Your task to perform on an android device: Open calendar and show me the third week of next month Image 0: 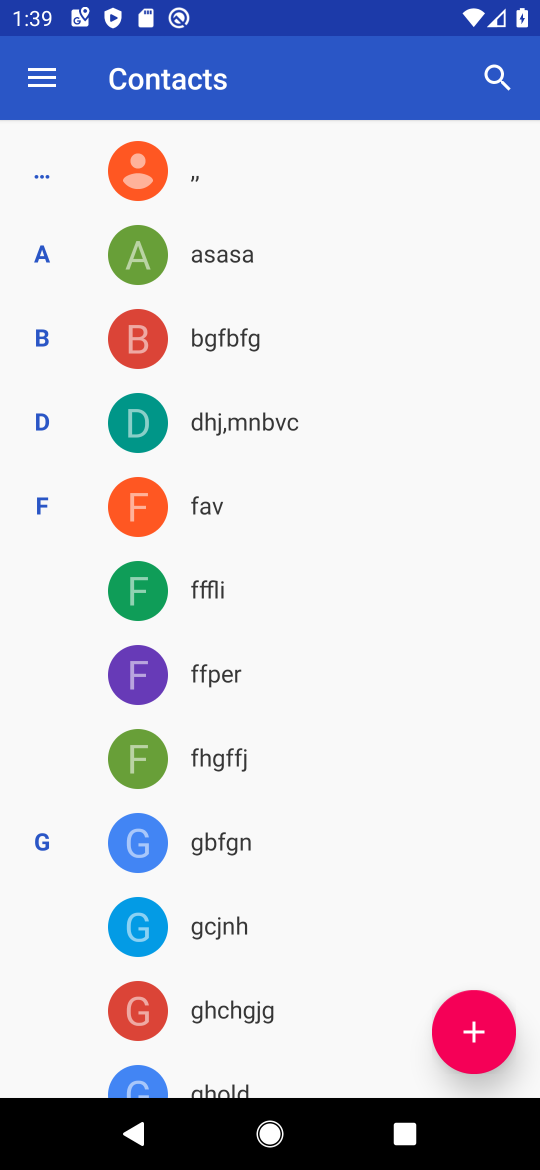
Step 0: press home button
Your task to perform on an android device: Open calendar and show me the third week of next month Image 1: 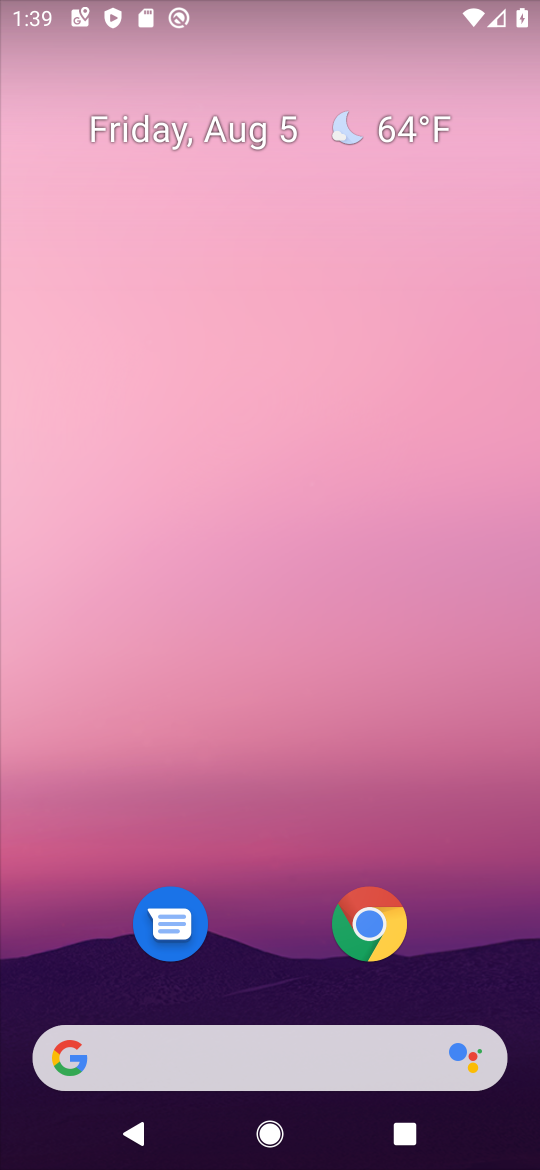
Step 1: drag from (257, 1067) to (366, 48)
Your task to perform on an android device: Open calendar and show me the third week of next month Image 2: 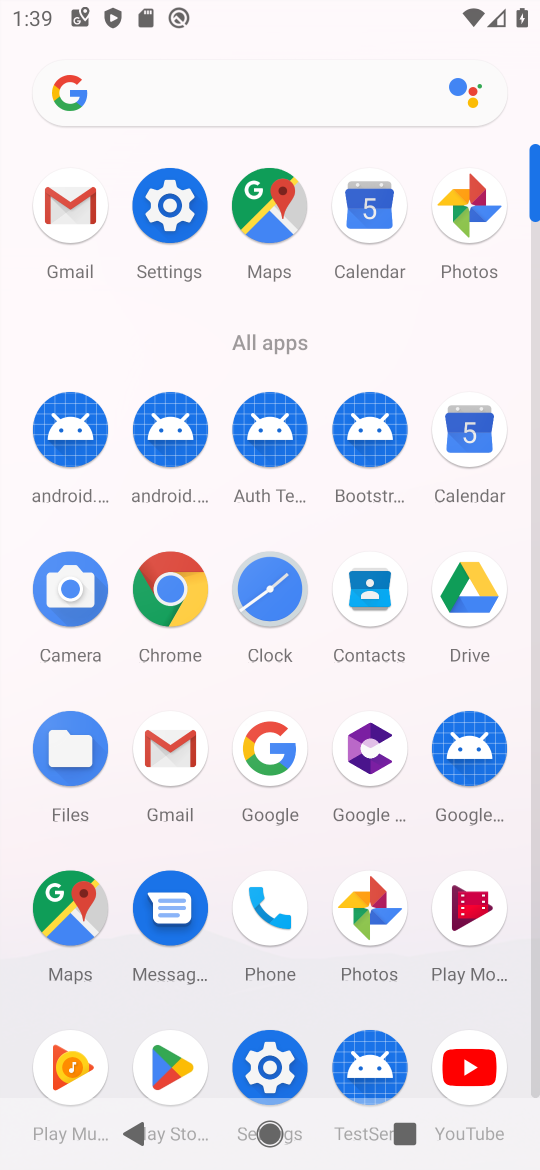
Step 2: click (467, 433)
Your task to perform on an android device: Open calendar and show me the third week of next month Image 3: 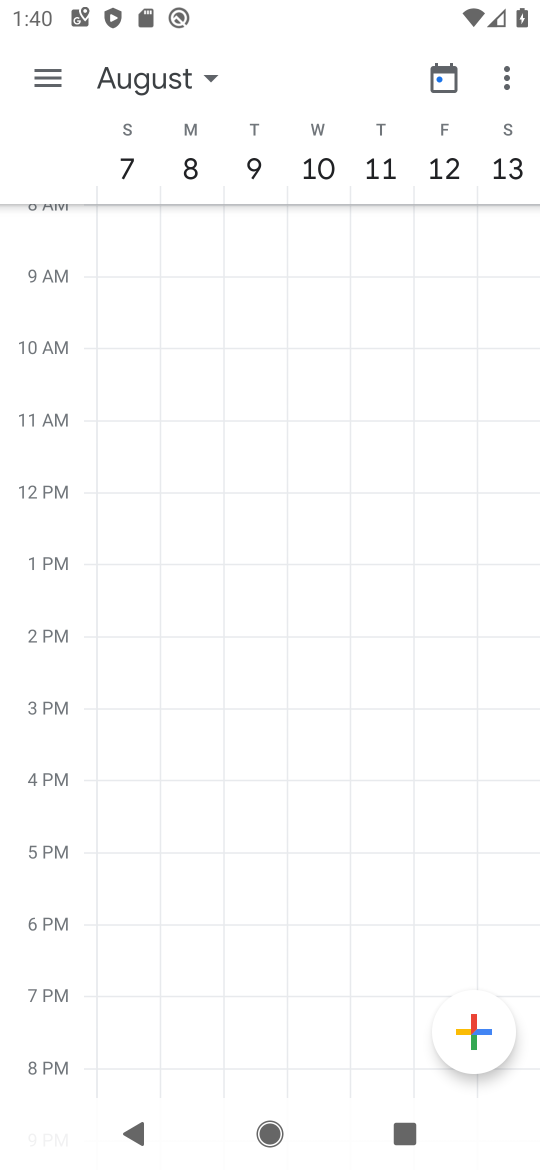
Step 3: click (444, 76)
Your task to perform on an android device: Open calendar and show me the third week of next month Image 4: 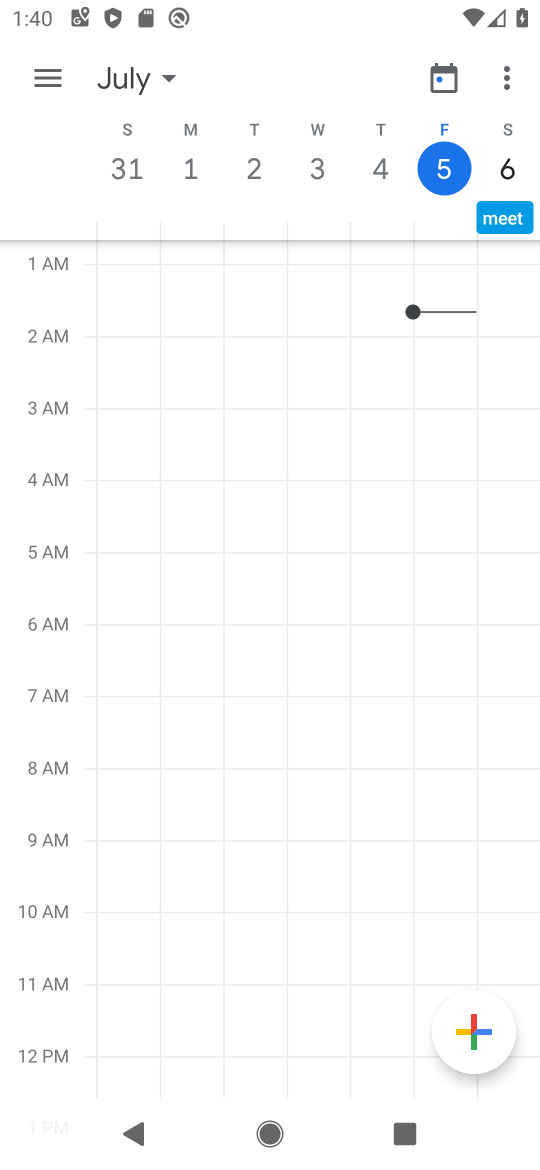
Step 4: click (170, 75)
Your task to perform on an android device: Open calendar and show me the third week of next month Image 5: 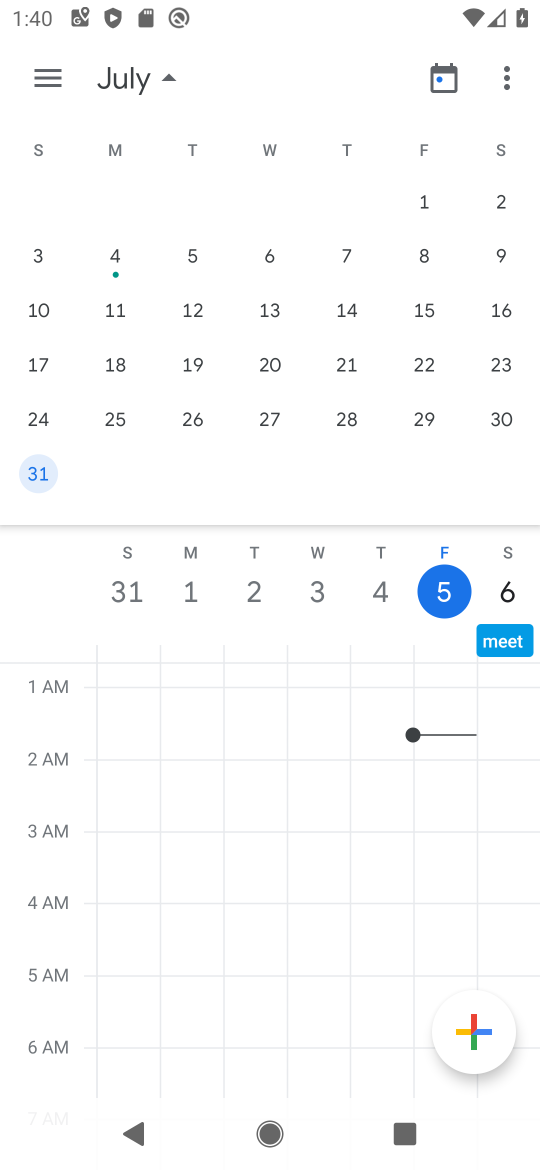
Step 5: drag from (504, 399) to (12, 352)
Your task to perform on an android device: Open calendar and show me the third week of next month Image 6: 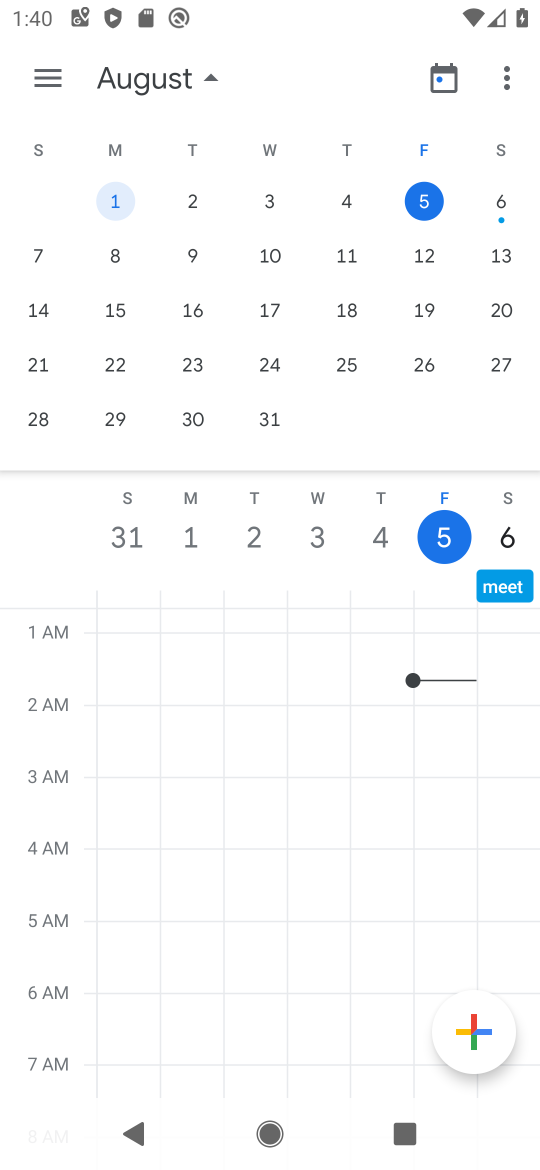
Step 6: drag from (486, 336) to (15, 263)
Your task to perform on an android device: Open calendar and show me the third week of next month Image 7: 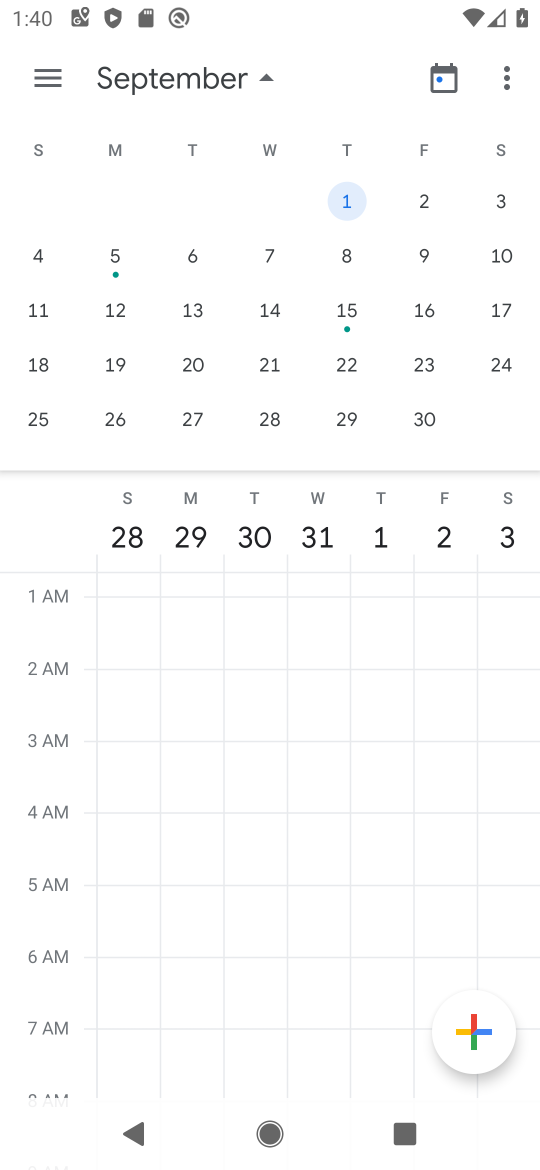
Step 7: click (131, 358)
Your task to perform on an android device: Open calendar and show me the third week of next month Image 8: 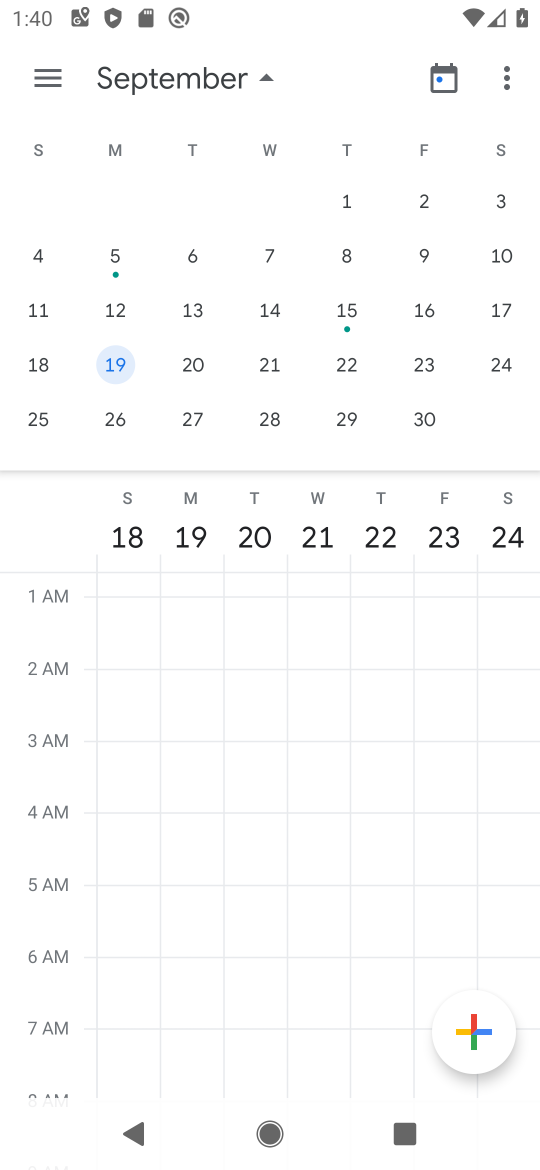
Step 8: click (39, 62)
Your task to perform on an android device: Open calendar and show me the third week of next month Image 9: 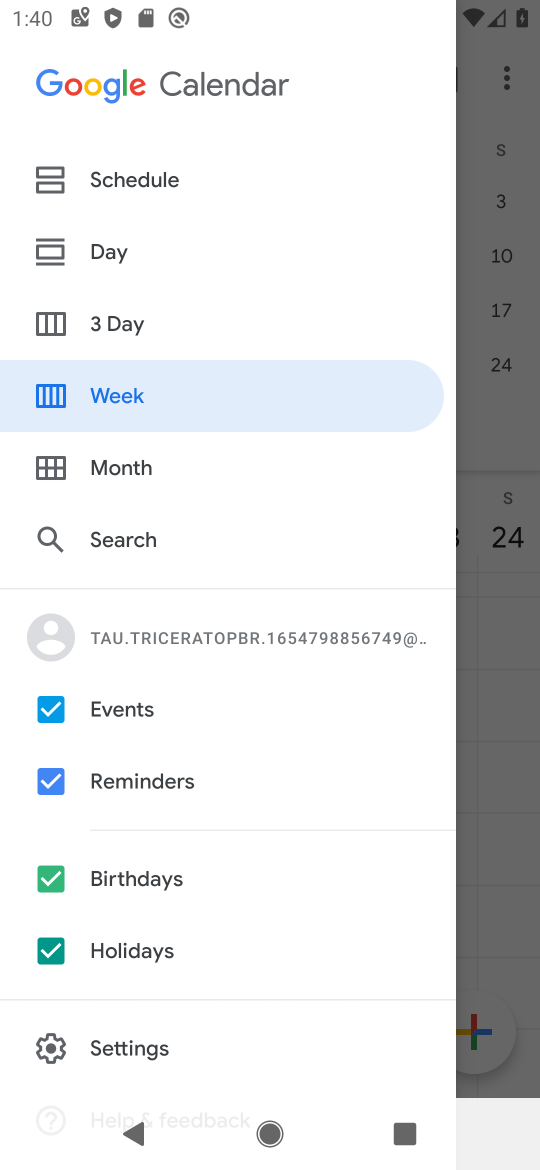
Step 9: click (144, 391)
Your task to perform on an android device: Open calendar and show me the third week of next month Image 10: 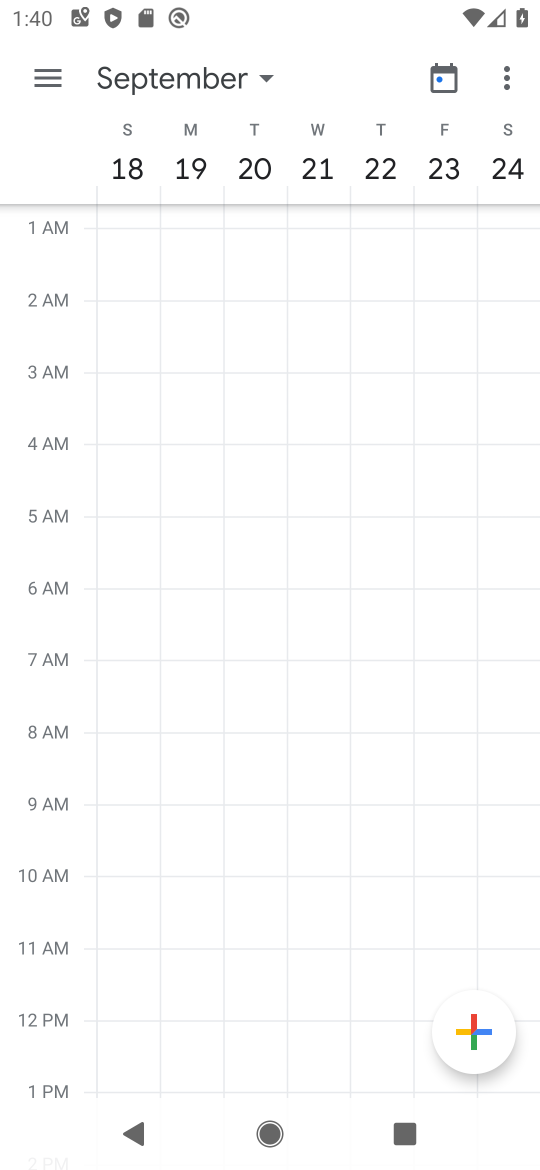
Step 10: task complete